Your task to perform on an android device: toggle notifications settings in the gmail app Image 0: 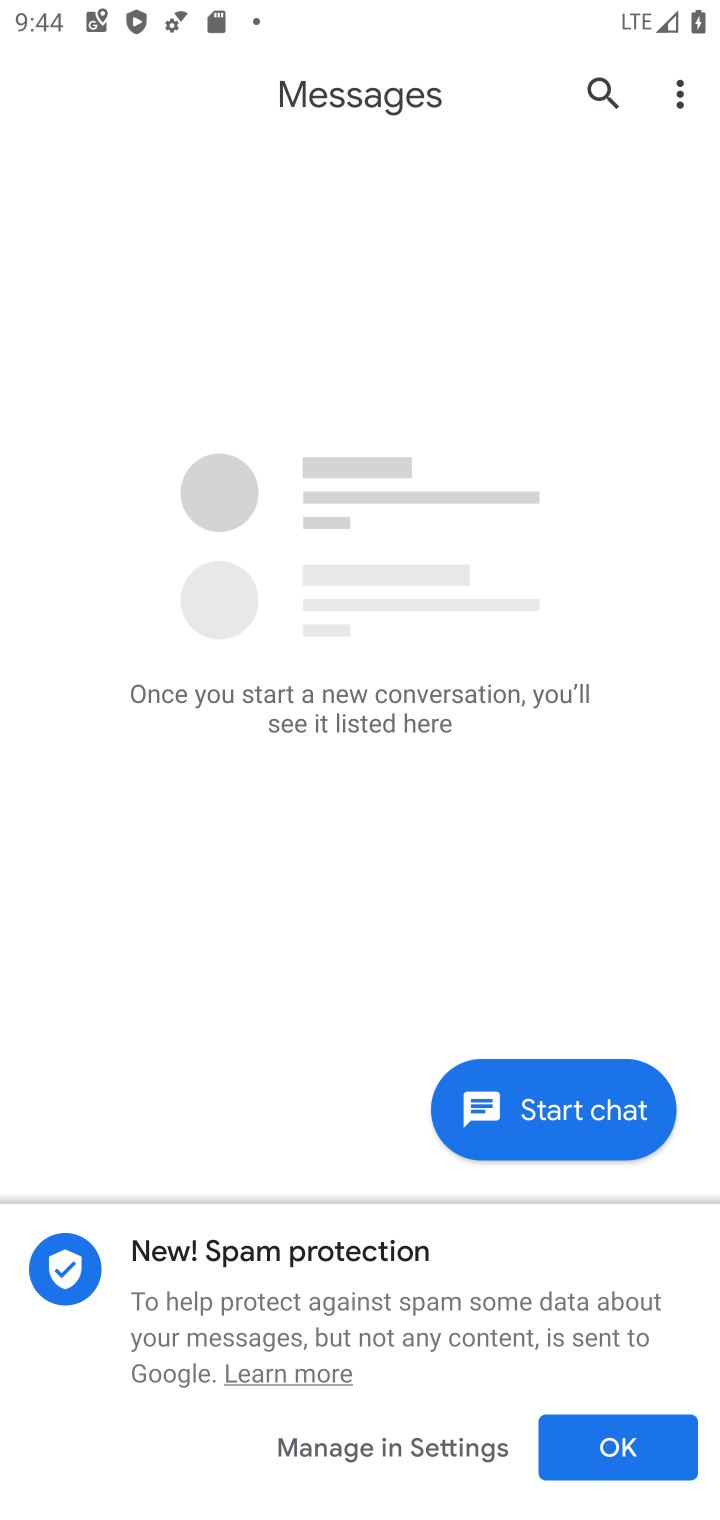
Step 0: press home button
Your task to perform on an android device: toggle notifications settings in the gmail app Image 1: 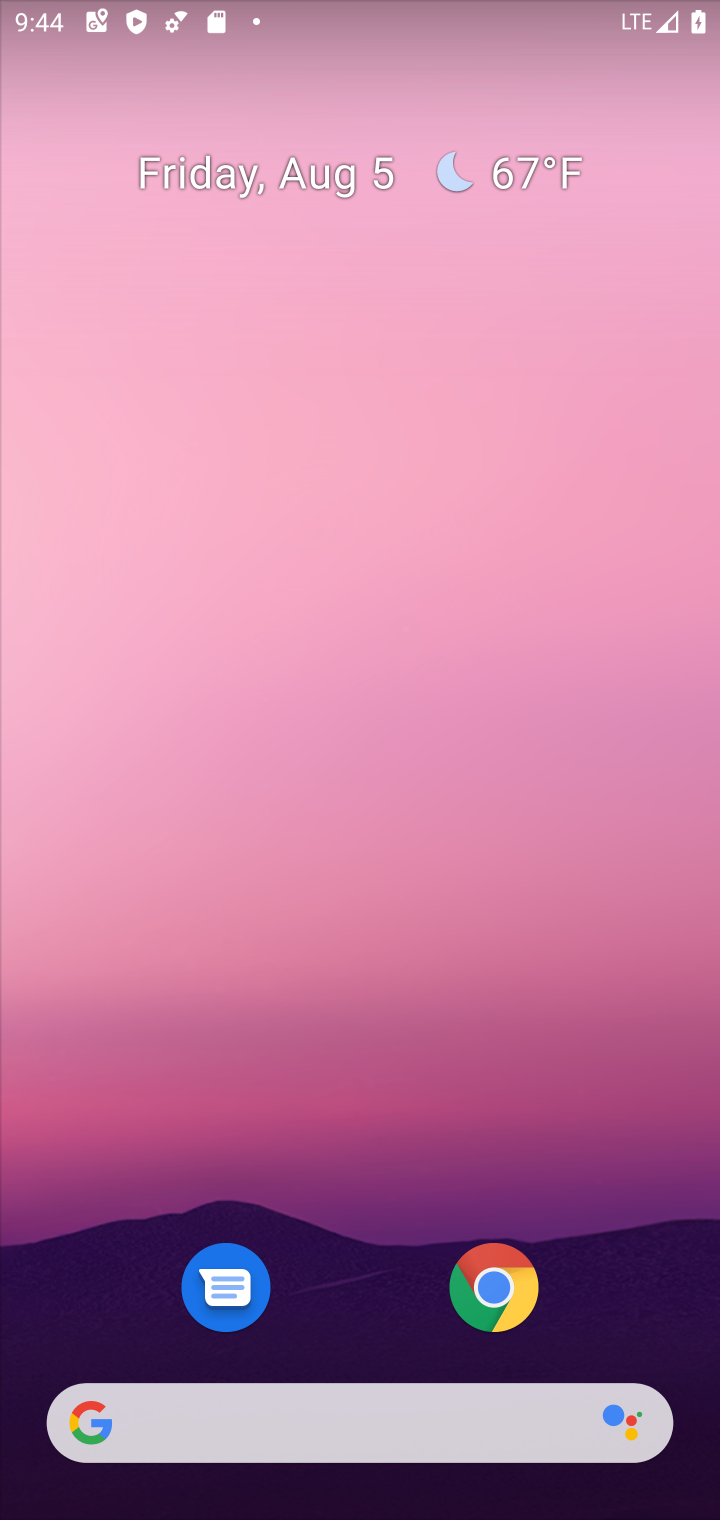
Step 1: drag from (344, 1343) to (331, 103)
Your task to perform on an android device: toggle notifications settings in the gmail app Image 2: 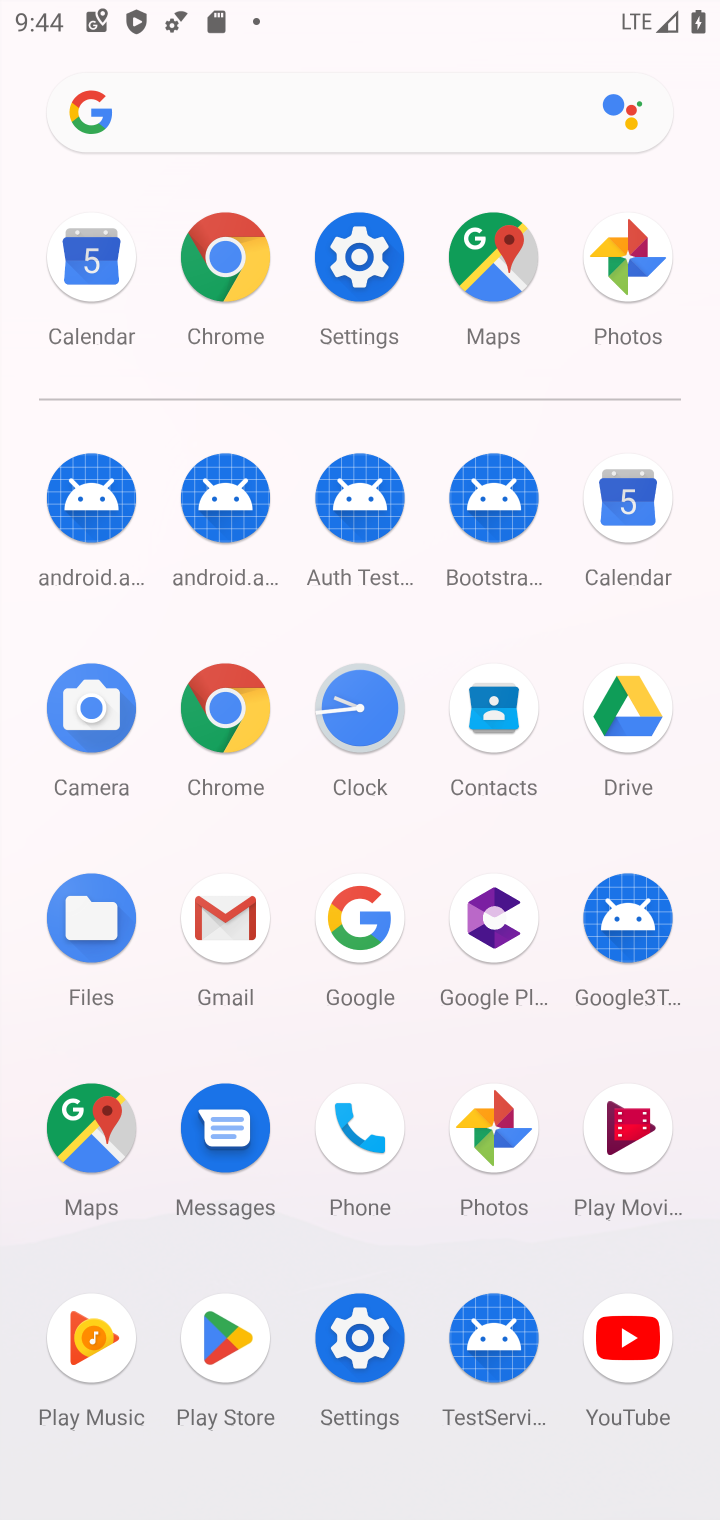
Step 2: click (354, 258)
Your task to perform on an android device: toggle notifications settings in the gmail app Image 3: 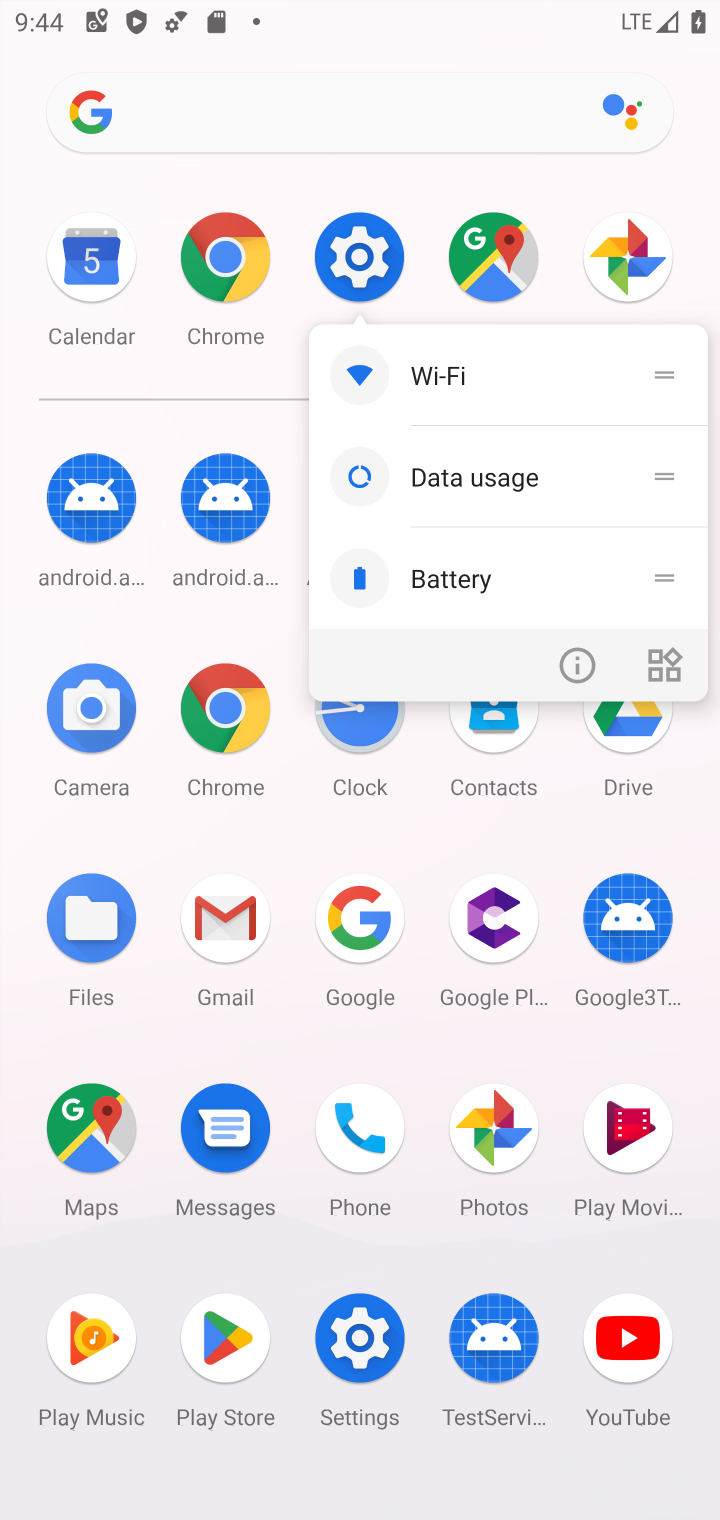
Step 3: click (354, 258)
Your task to perform on an android device: toggle notifications settings in the gmail app Image 4: 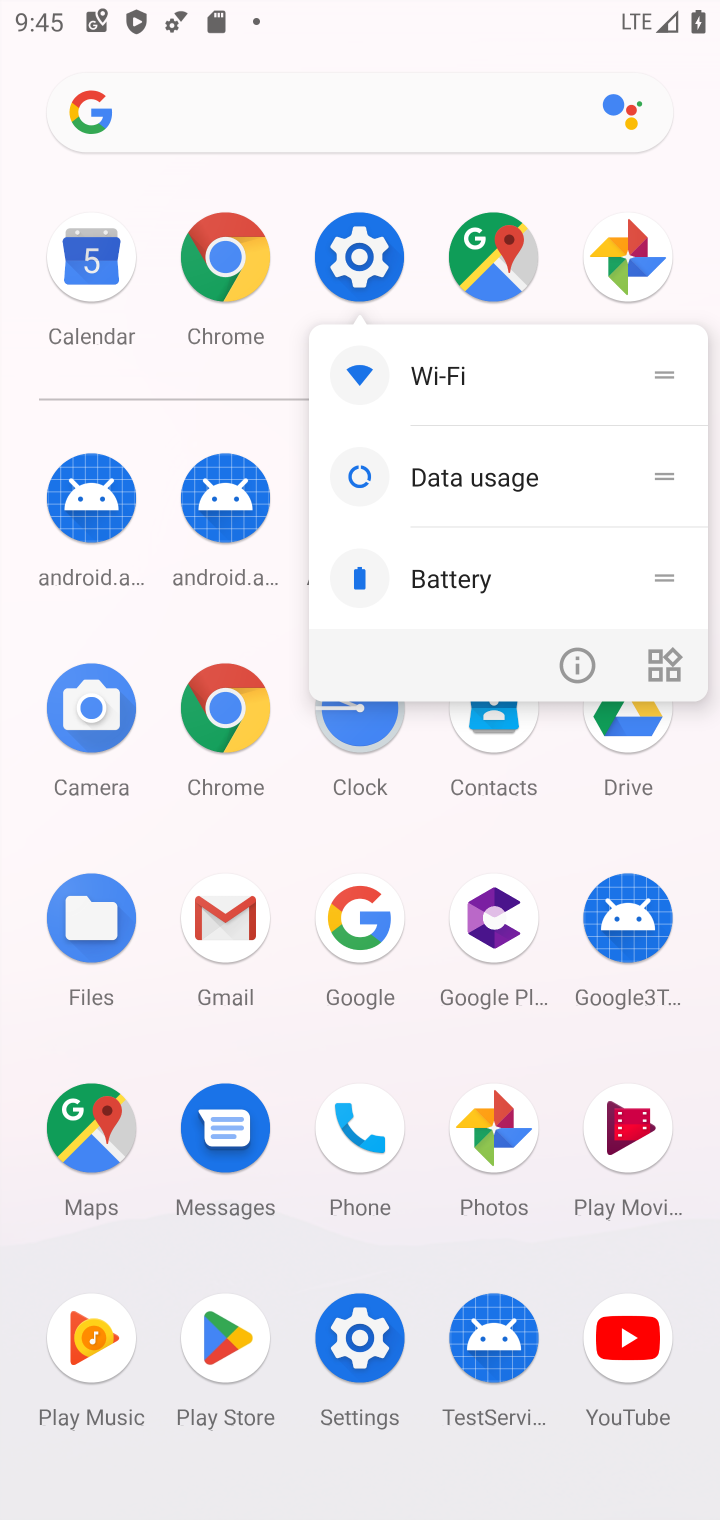
Step 4: click (349, 265)
Your task to perform on an android device: toggle notifications settings in the gmail app Image 5: 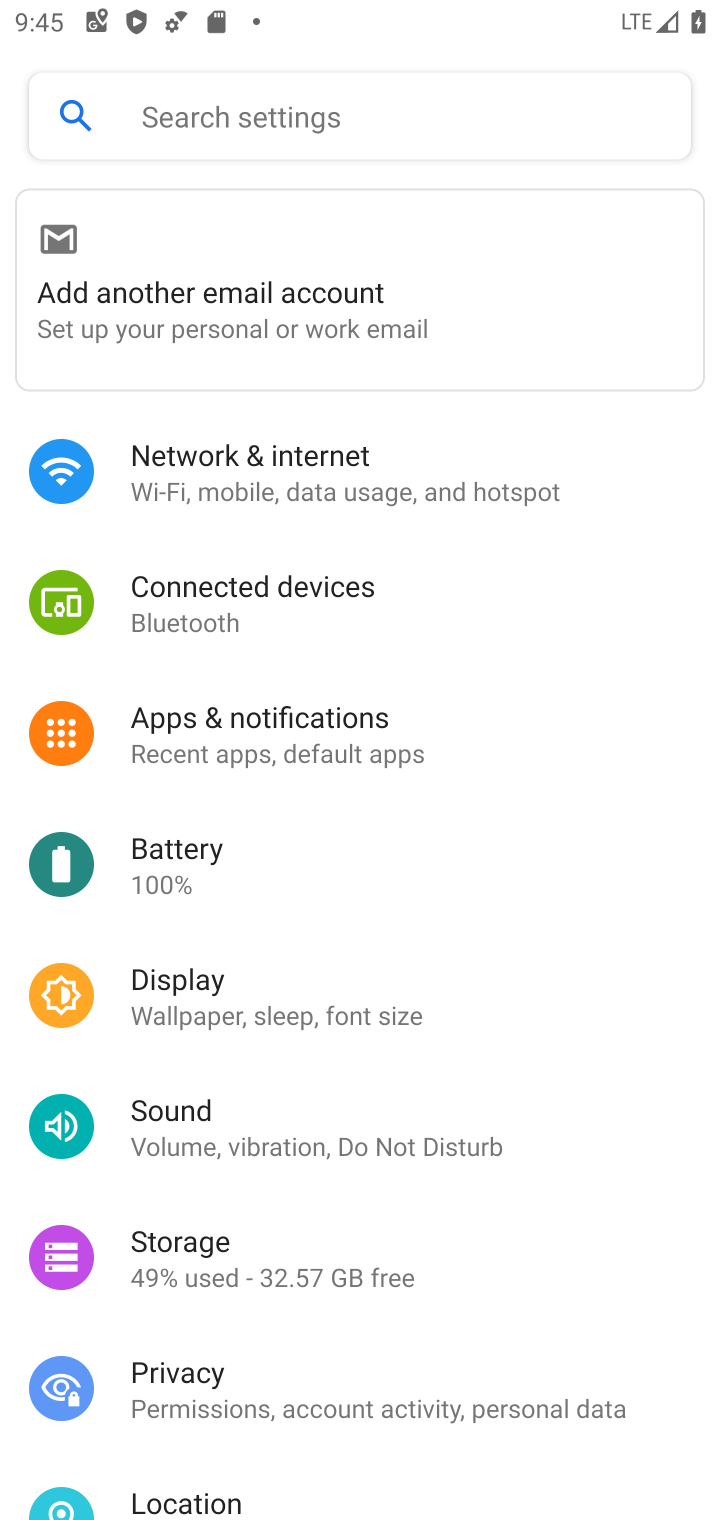
Step 5: click (236, 728)
Your task to perform on an android device: toggle notifications settings in the gmail app Image 6: 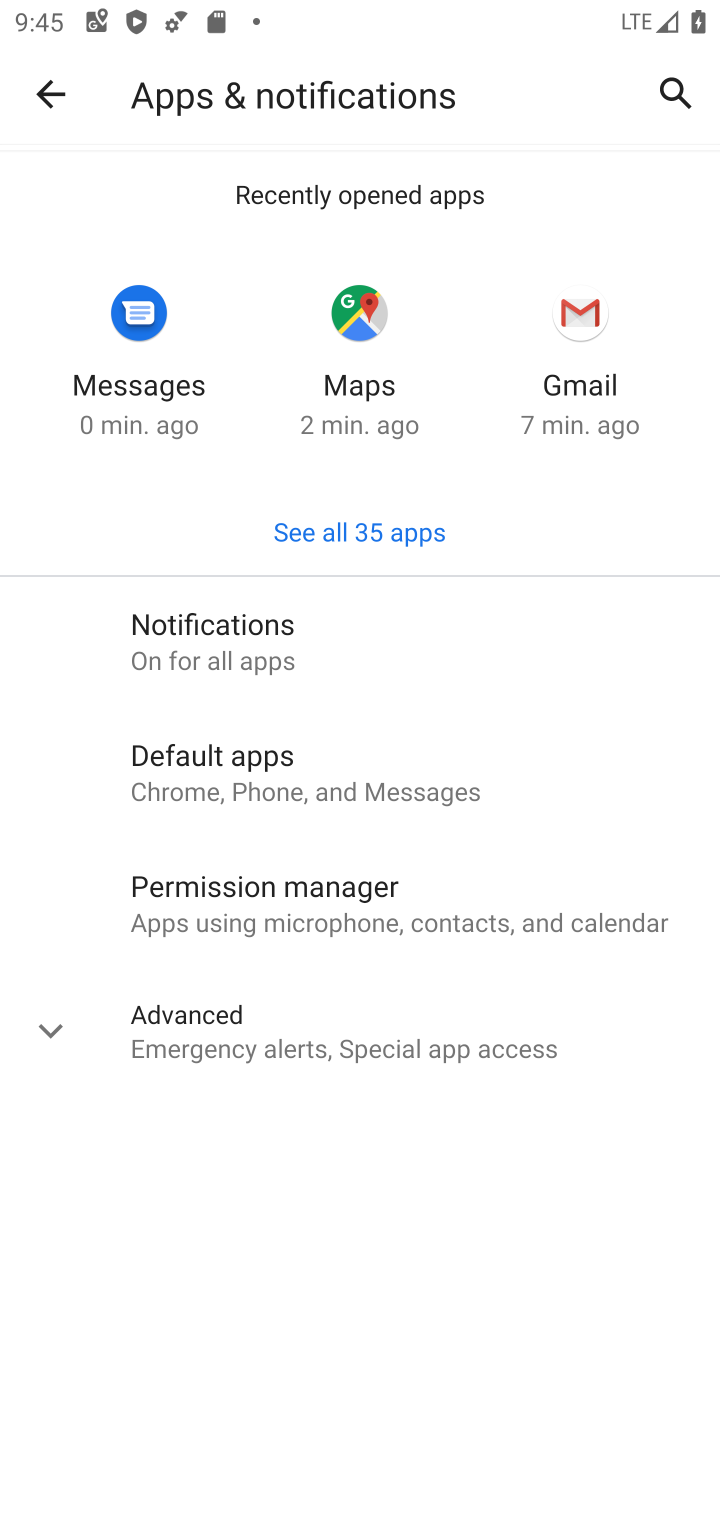
Step 6: click (213, 654)
Your task to perform on an android device: toggle notifications settings in the gmail app Image 7: 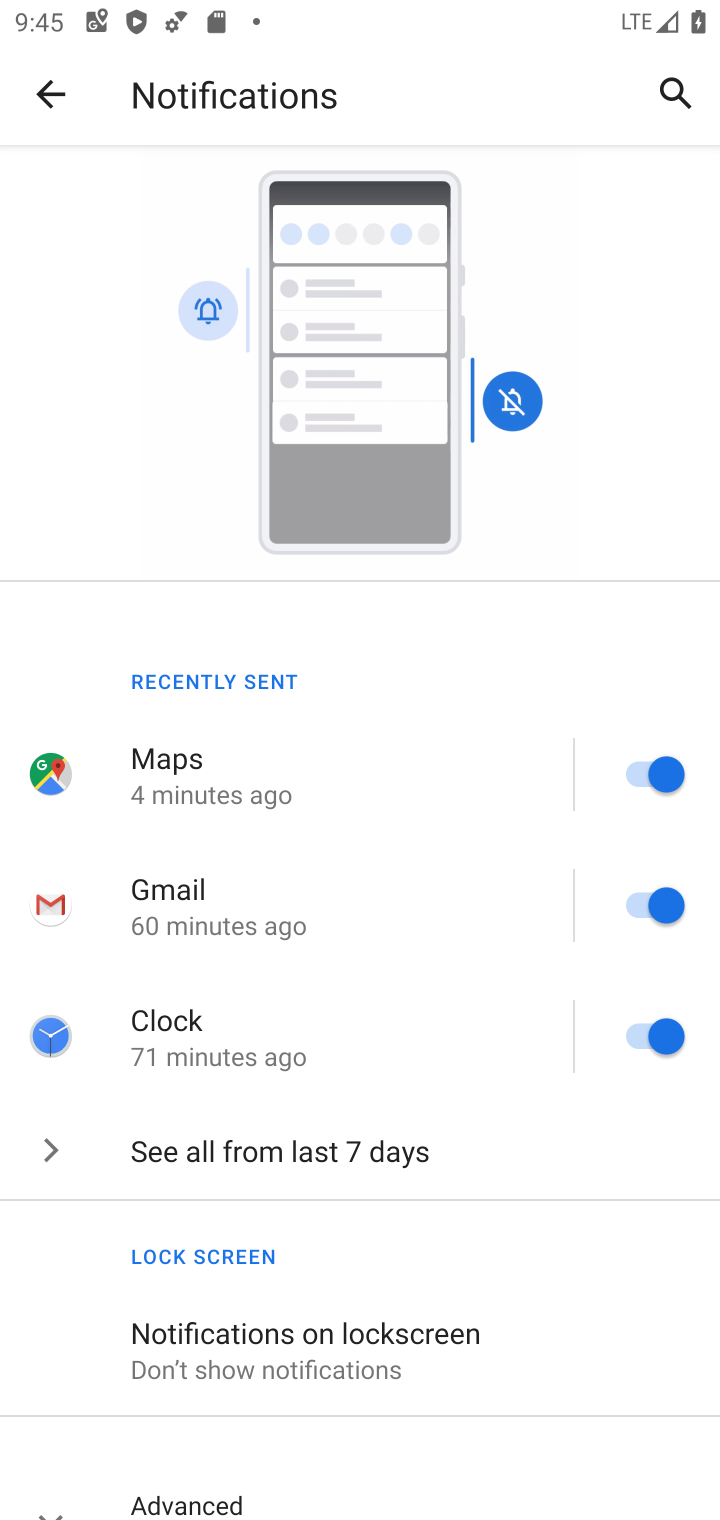
Step 7: drag from (291, 1393) to (286, 783)
Your task to perform on an android device: toggle notifications settings in the gmail app Image 8: 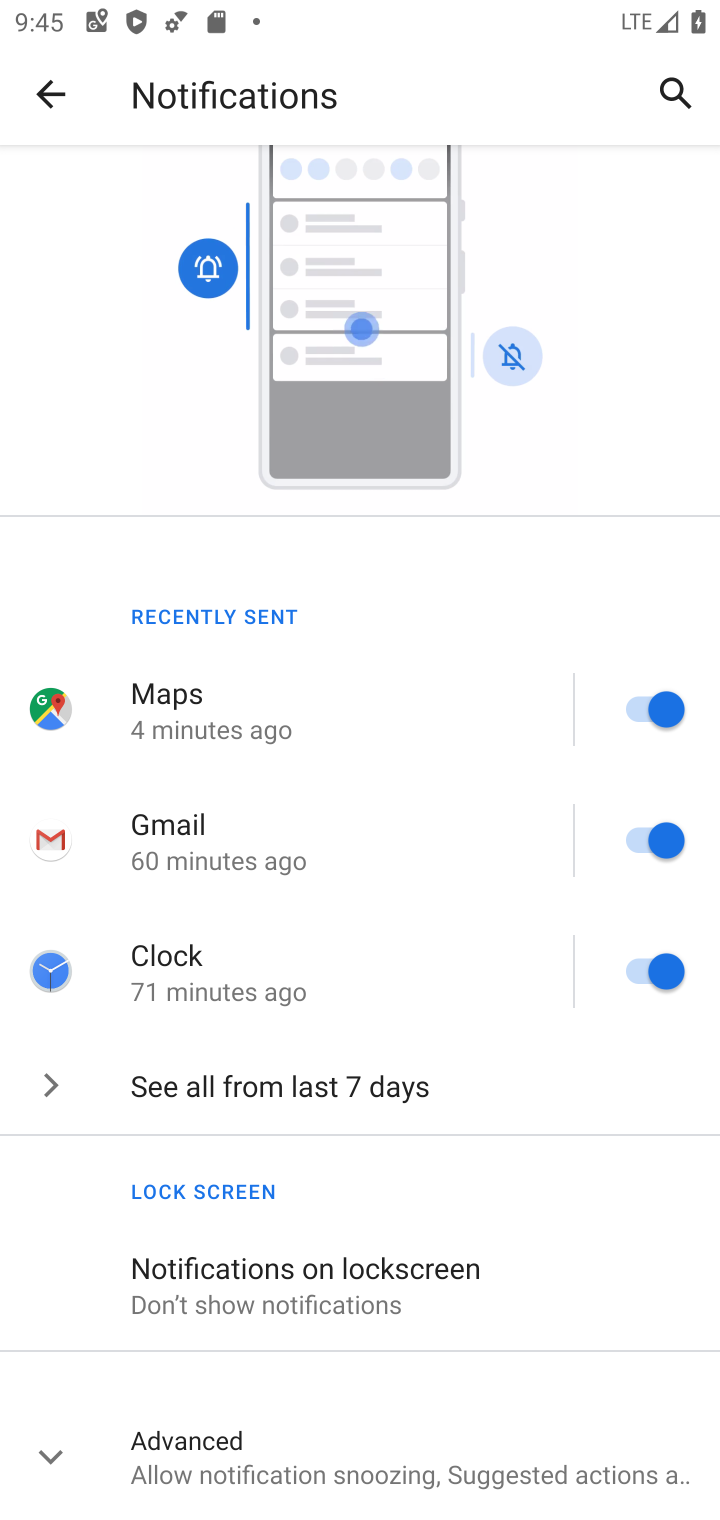
Step 8: click (287, 1462)
Your task to perform on an android device: toggle notifications settings in the gmail app Image 9: 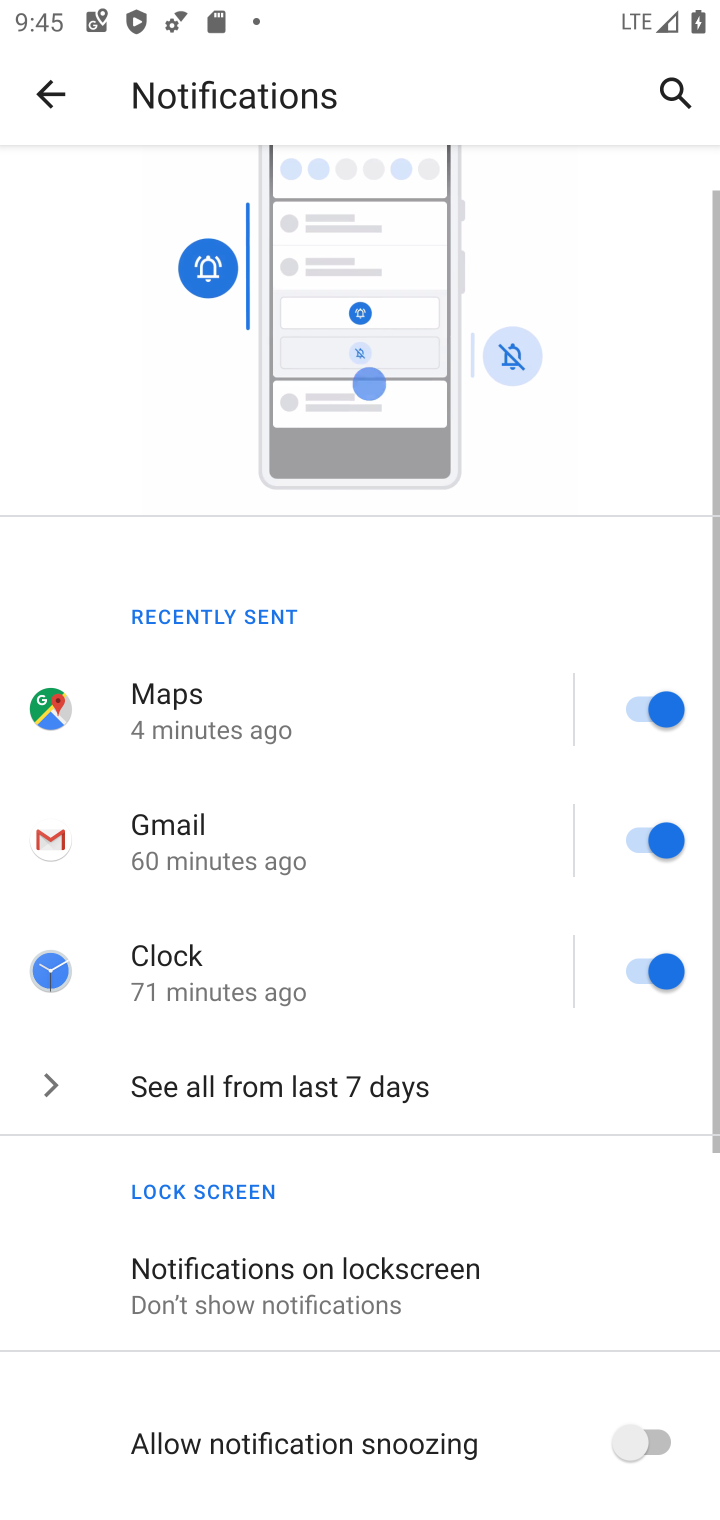
Step 9: drag from (502, 1409) to (510, 912)
Your task to perform on an android device: toggle notifications settings in the gmail app Image 10: 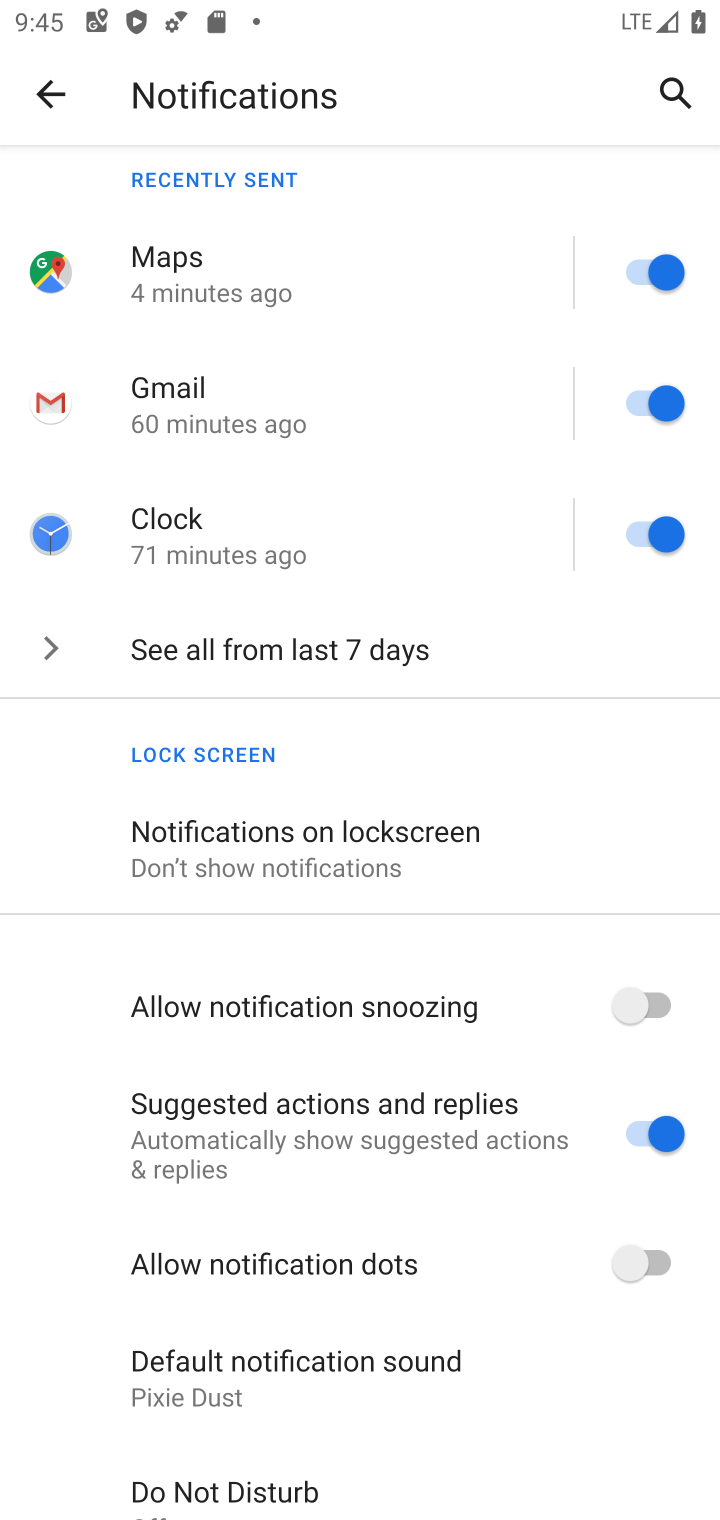
Step 10: click (655, 1004)
Your task to perform on an android device: toggle notifications settings in the gmail app Image 11: 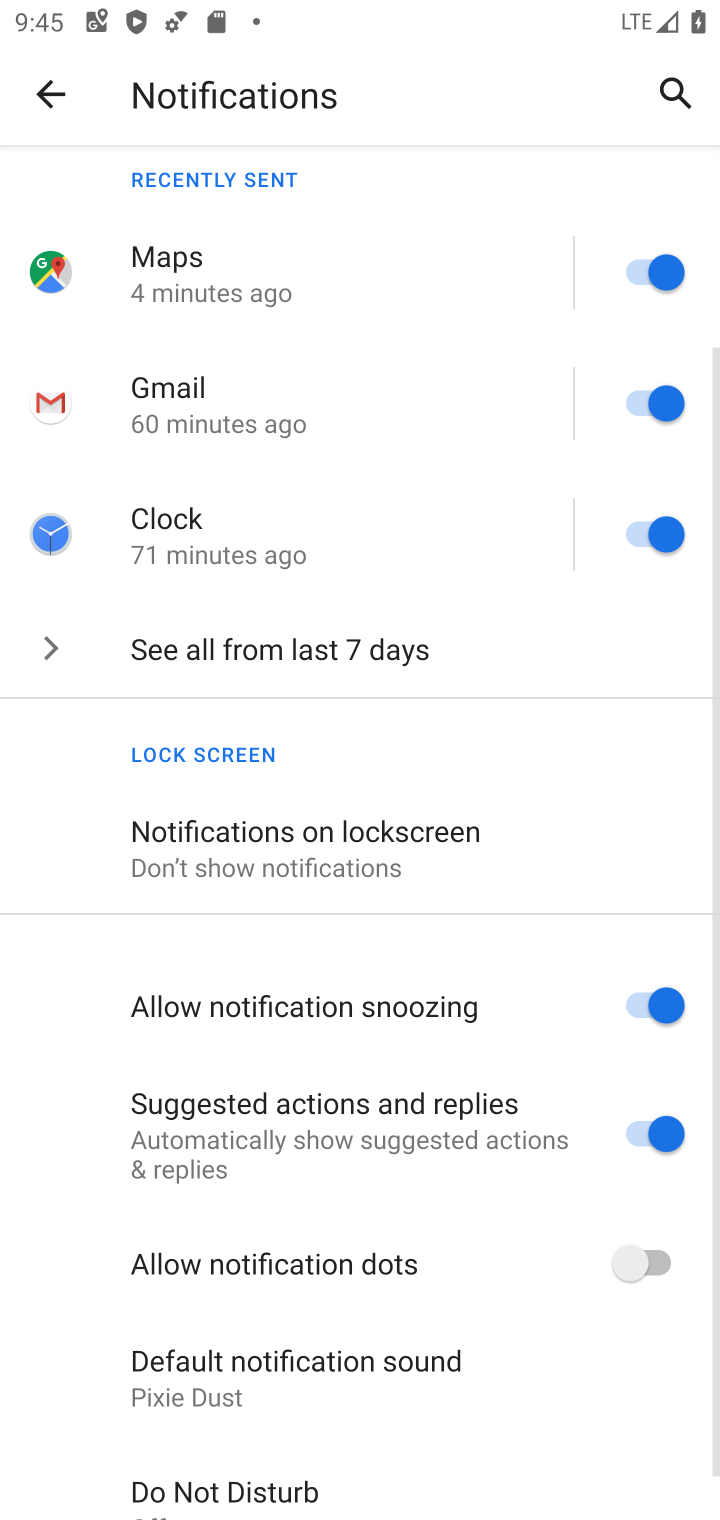
Step 11: task complete